Your task to perform on an android device: toggle priority inbox in the gmail app Image 0: 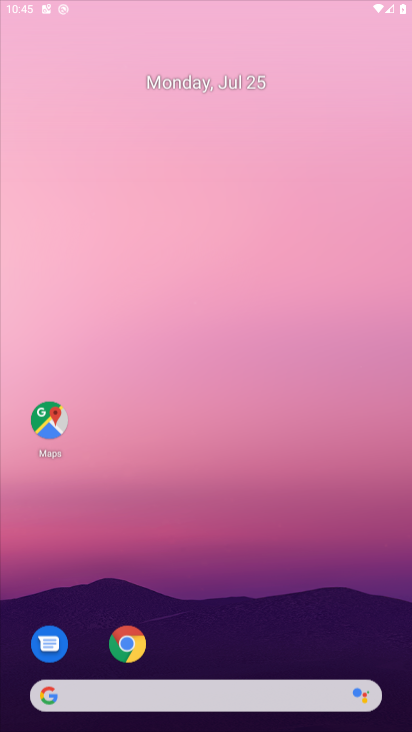
Step 0: press home button
Your task to perform on an android device: toggle priority inbox in the gmail app Image 1: 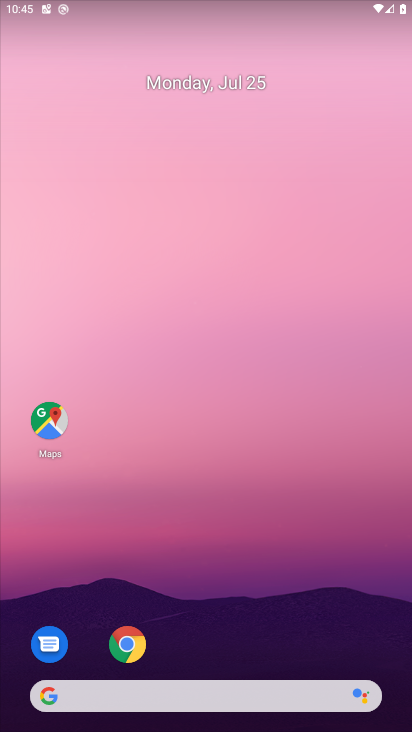
Step 1: click (43, 423)
Your task to perform on an android device: toggle priority inbox in the gmail app Image 2: 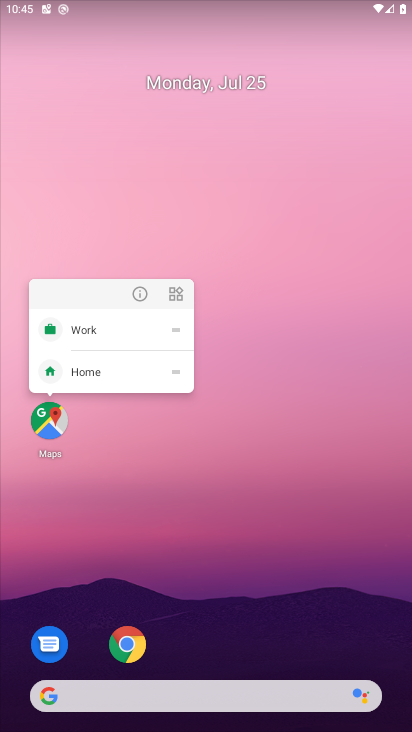
Step 2: click (51, 418)
Your task to perform on an android device: toggle priority inbox in the gmail app Image 3: 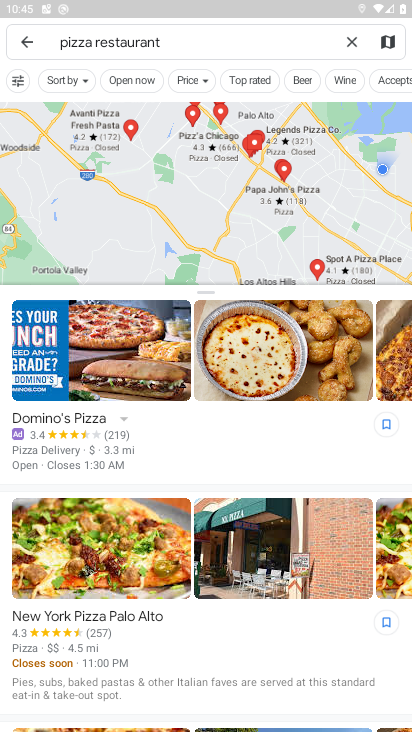
Step 3: task complete